Your task to perform on an android device: Go to location settings Image 0: 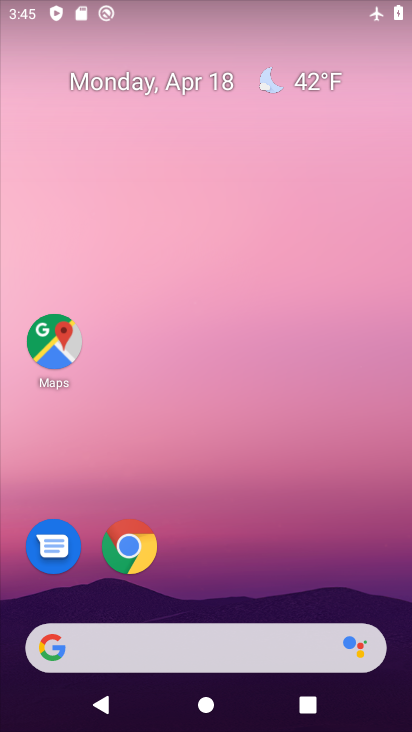
Step 0: drag from (310, 602) to (286, 181)
Your task to perform on an android device: Go to location settings Image 1: 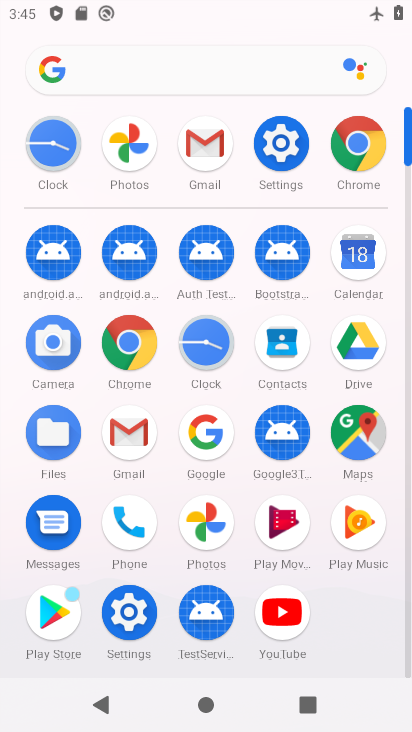
Step 1: click (294, 156)
Your task to perform on an android device: Go to location settings Image 2: 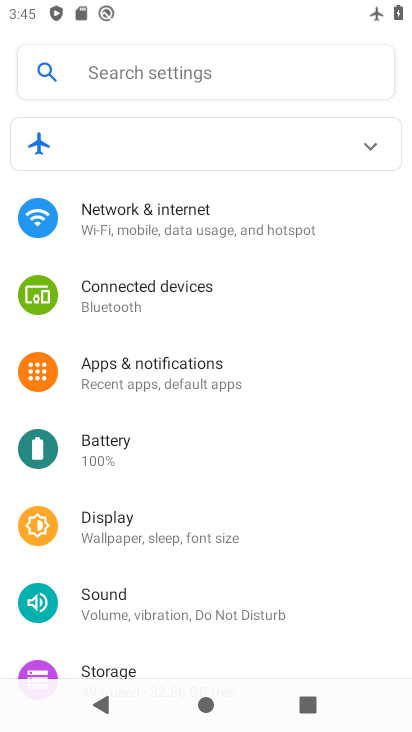
Step 2: drag from (254, 574) to (237, 272)
Your task to perform on an android device: Go to location settings Image 3: 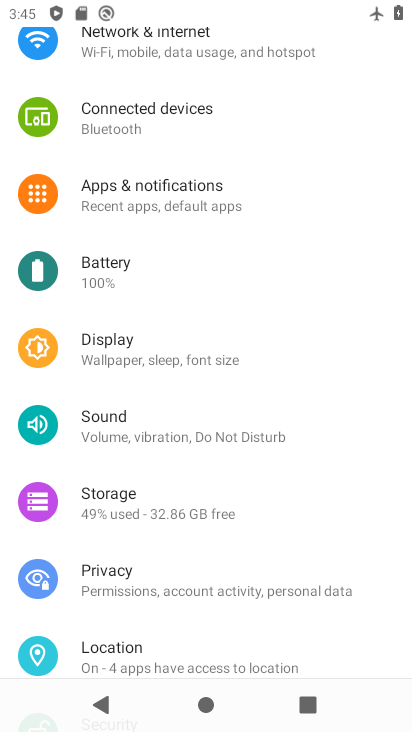
Step 3: drag from (207, 614) to (295, 317)
Your task to perform on an android device: Go to location settings Image 4: 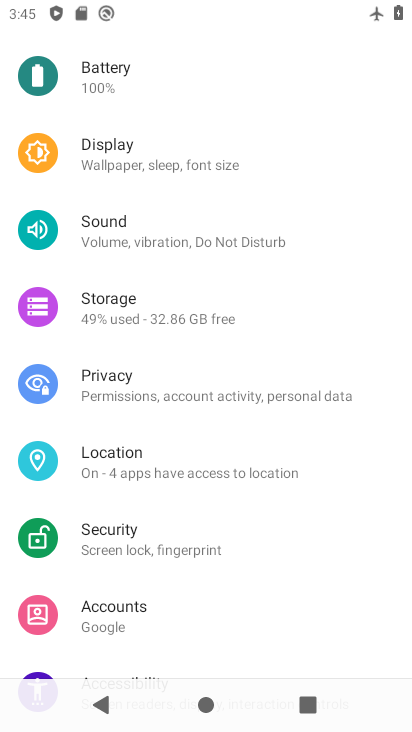
Step 4: click (154, 461)
Your task to perform on an android device: Go to location settings Image 5: 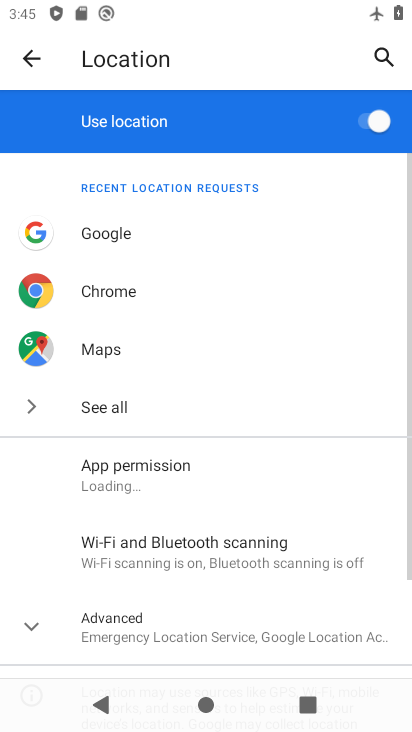
Step 5: task complete